Your task to perform on an android device: Go to battery settings Image 0: 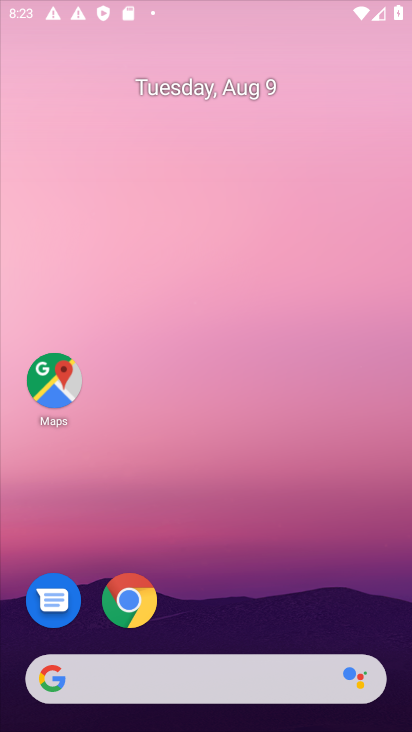
Step 0: press home button
Your task to perform on an android device: Go to battery settings Image 1: 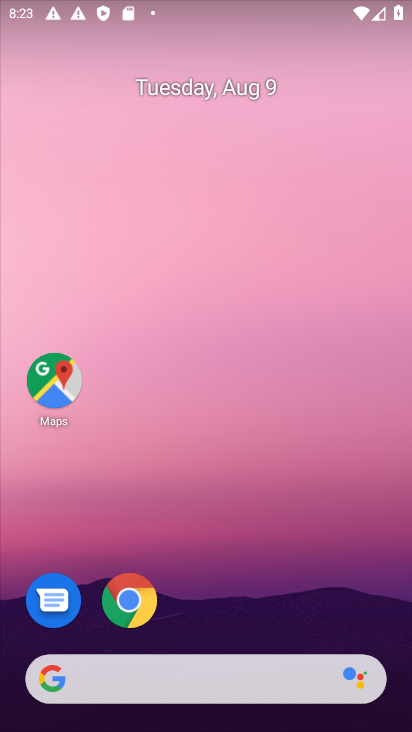
Step 1: drag from (294, 617) to (377, 1)
Your task to perform on an android device: Go to battery settings Image 2: 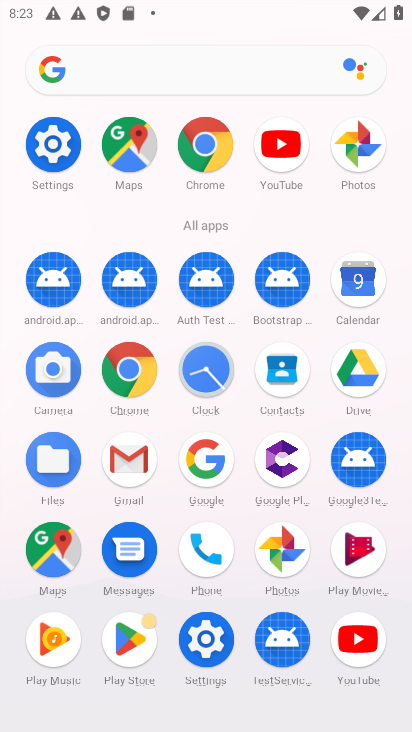
Step 2: click (51, 147)
Your task to perform on an android device: Go to battery settings Image 3: 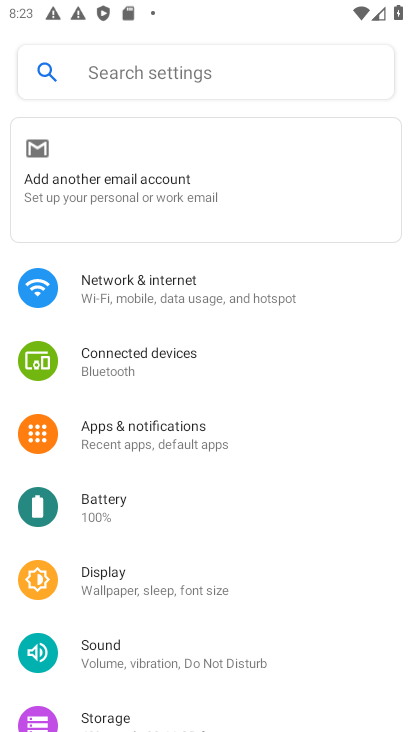
Step 3: click (100, 513)
Your task to perform on an android device: Go to battery settings Image 4: 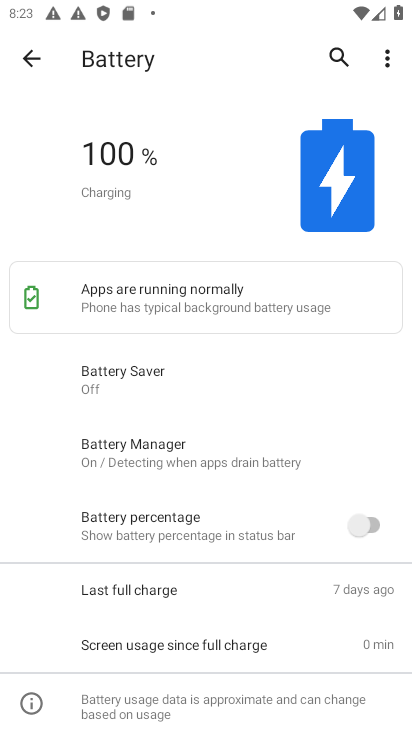
Step 4: task complete